Your task to perform on an android device: move an email to a new category in the gmail app Image 0: 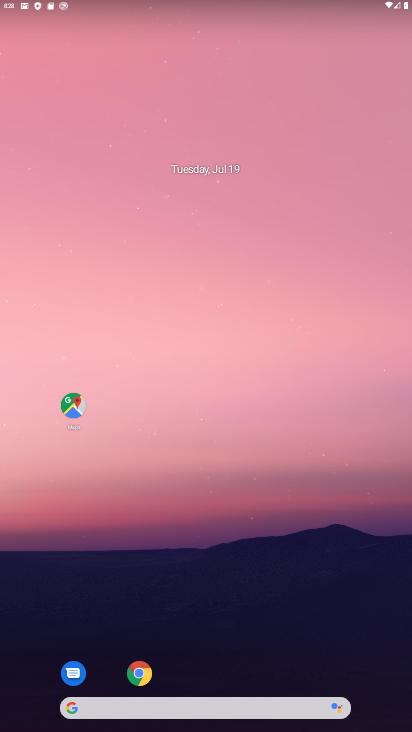
Step 0: press home button
Your task to perform on an android device: move an email to a new category in the gmail app Image 1: 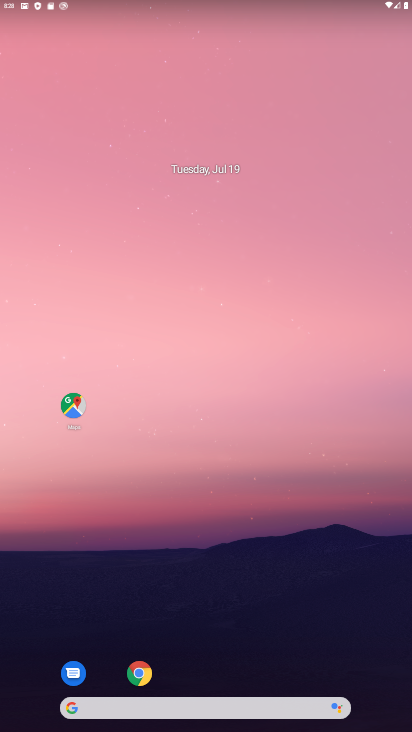
Step 1: drag from (232, 640) to (249, 12)
Your task to perform on an android device: move an email to a new category in the gmail app Image 2: 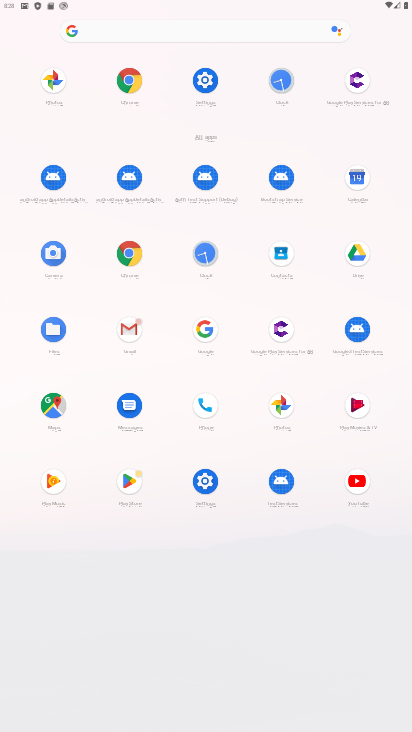
Step 2: click (138, 351)
Your task to perform on an android device: move an email to a new category in the gmail app Image 3: 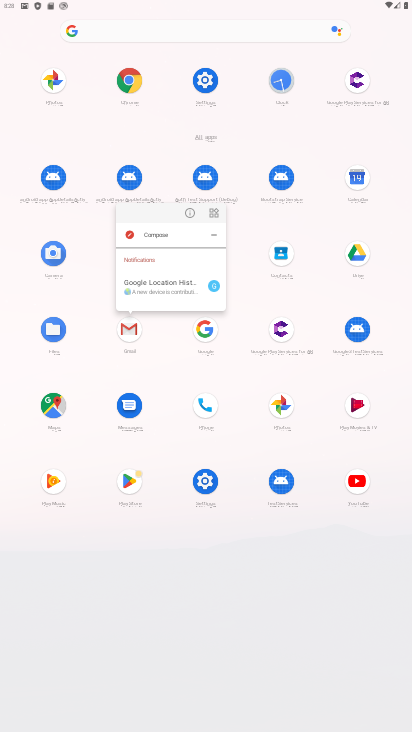
Step 3: click (130, 343)
Your task to perform on an android device: move an email to a new category in the gmail app Image 4: 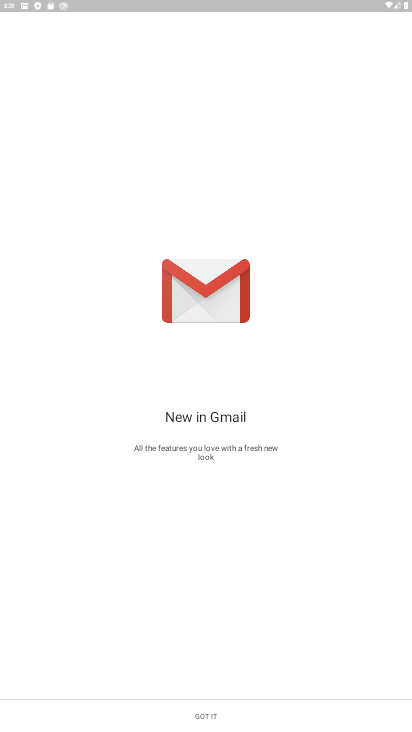
Step 4: click (194, 715)
Your task to perform on an android device: move an email to a new category in the gmail app Image 5: 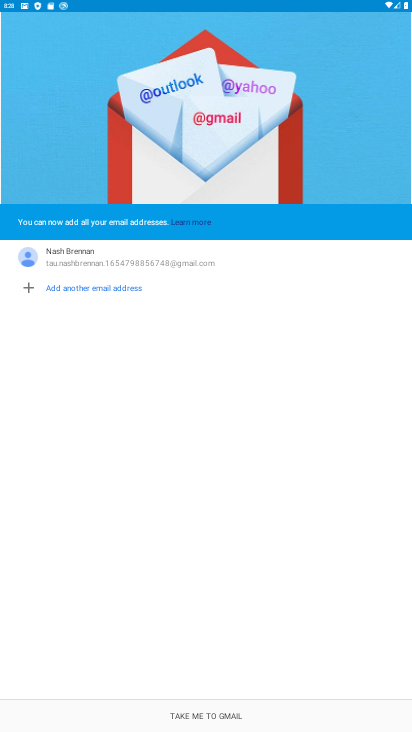
Step 5: click (195, 715)
Your task to perform on an android device: move an email to a new category in the gmail app Image 6: 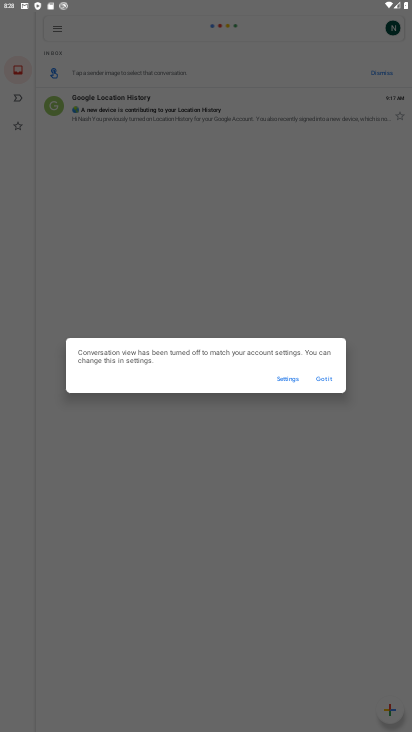
Step 6: click (328, 380)
Your task to perform on an android device: move an email to a new category in the gmail app Image 7: 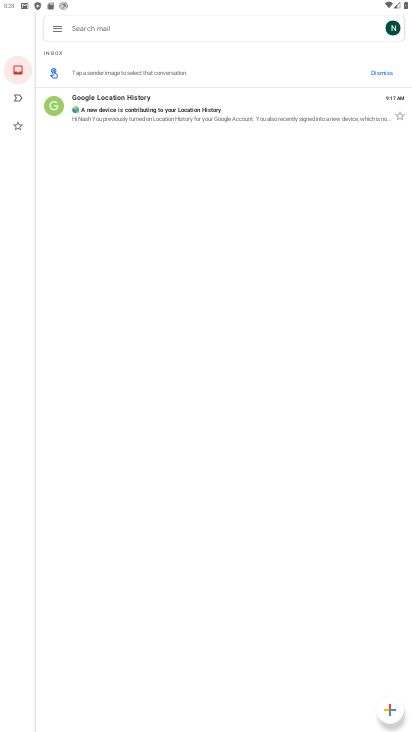
Step 7: click (53, 99)
Your task to perform on an android device: move an email to a new category in the gmail app Image 8: 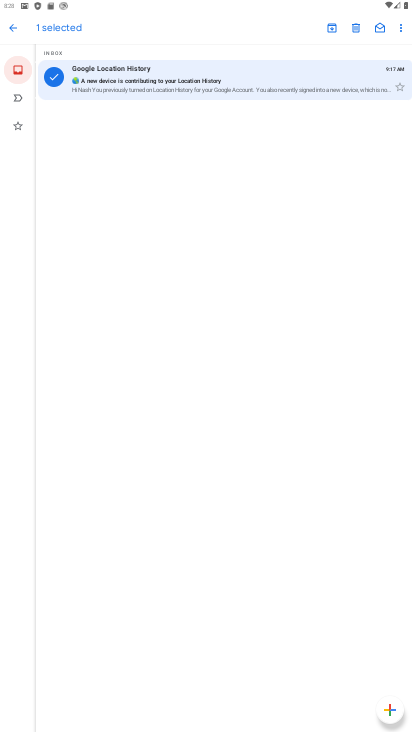
Step 8: click (397, 28)
Your task to perform on an android device: move an email to a new category in the gmail app Image 9: 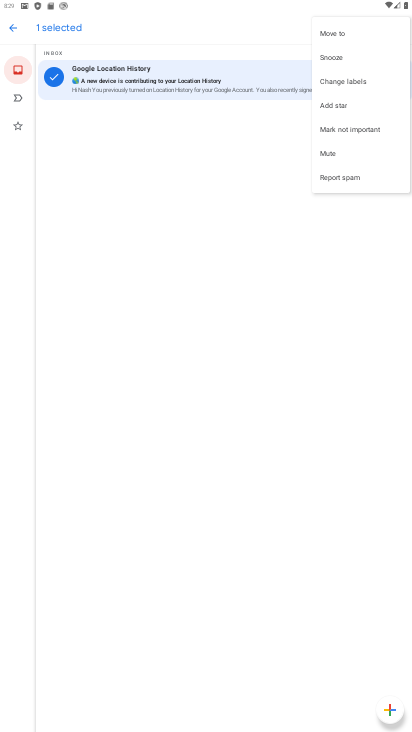
Step 9: click (348, 34)
Your task to perform on an android device: move an email to a new category in the gmail app Image 10: 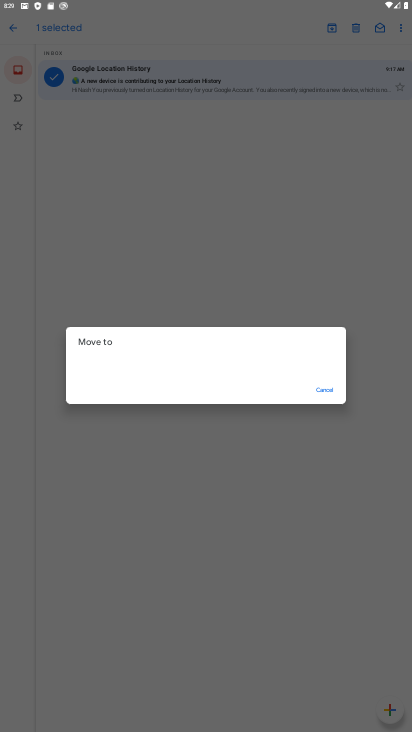
Step 10: click (321, 392)
Your task to perform on an android device: move an email to a new category in the gmail app Image 11: 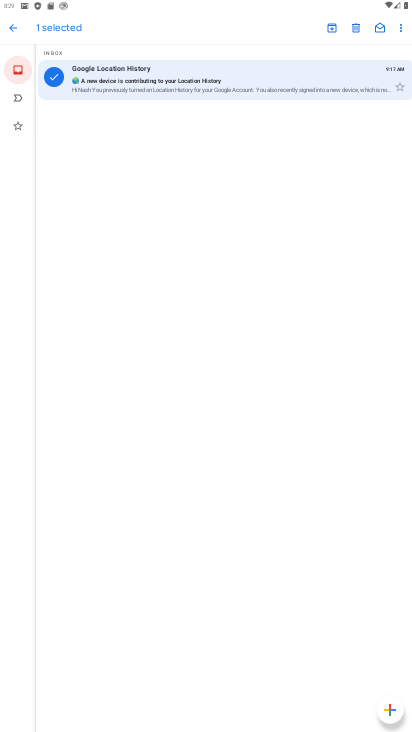
Step 11: click (399, 34)
Your task to perform on an android device: move an email to a new category in the gmail app Image 12: 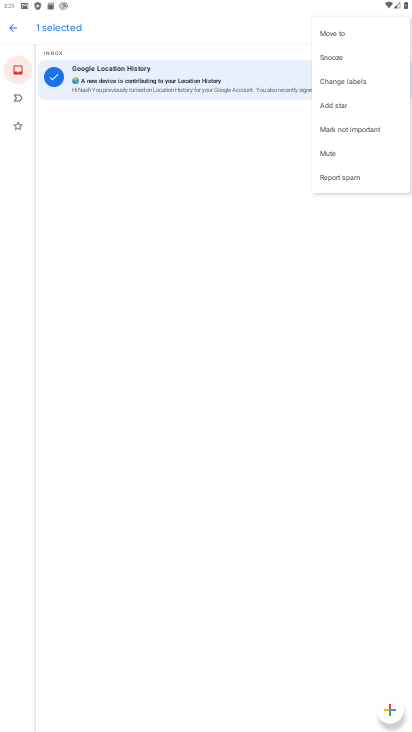
Step 12: click (352, 84)
Your task to perform on an android device: move an email to a new category in the gmail app Image 13: 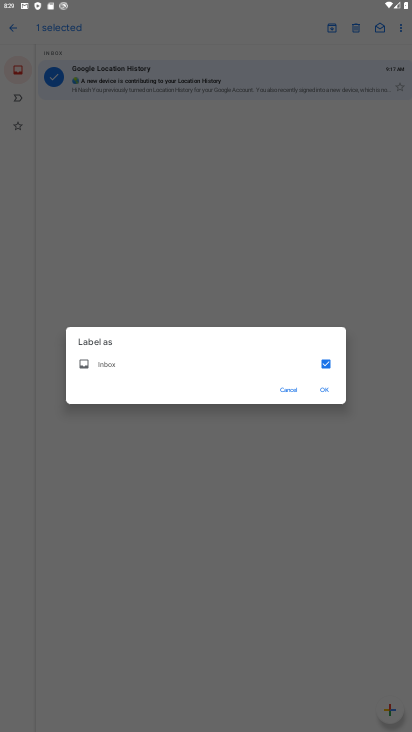
Step 13: click (324, 363)
Your task to perform on an android device: move an email to a new category in the gmail app Image 14: 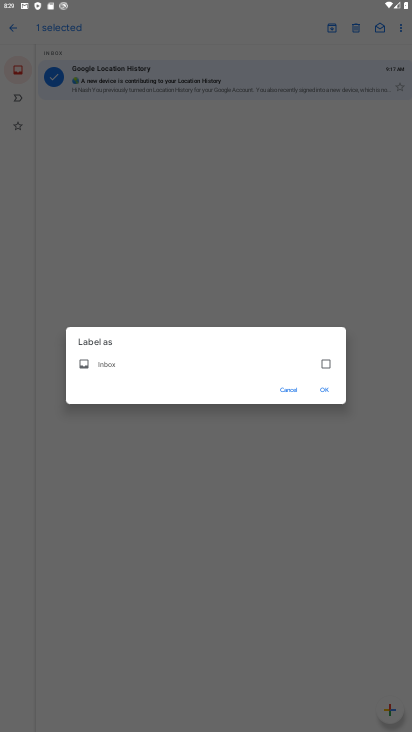
Step 14: click (325, 394)
Your task to perform on an android device: move an email to a new category in the gmail app Image 15: 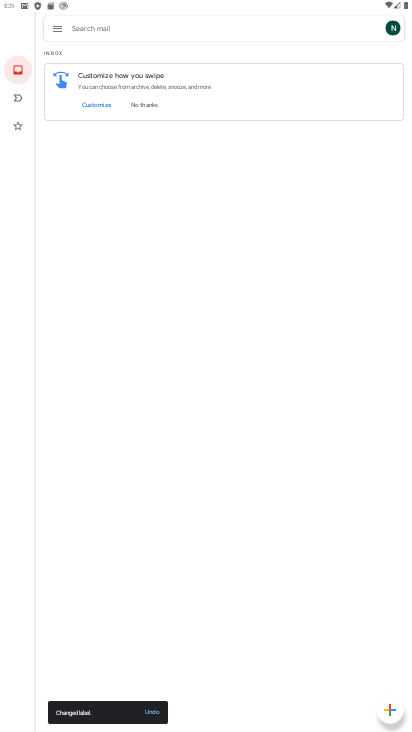
Step 15: task complete